Your task to perform on an android device: toggle airplane mode Image 0: 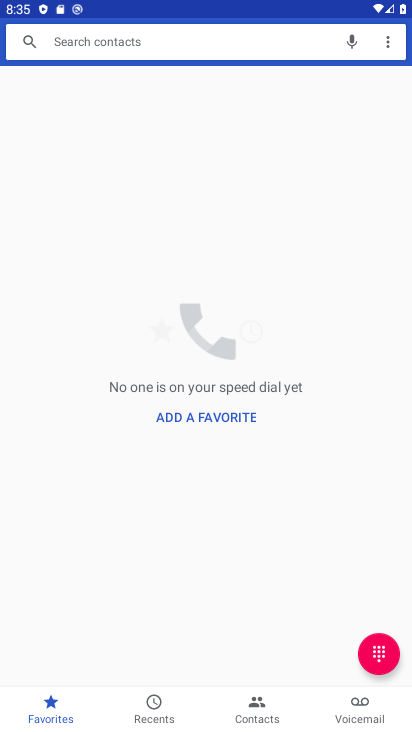
Step 0: press home button
Your task to perform on an android device: toggle airplane mode Image 1: 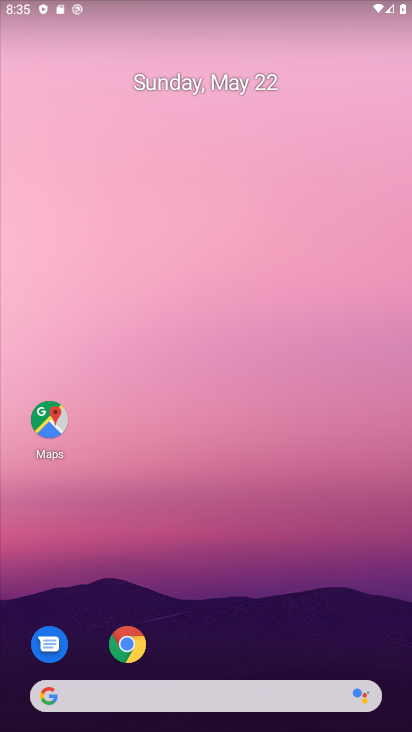
Step 1: drag from (205, 696) to (211, 250)
Your task to perform on an android device: toggle airplane mode Image 2: 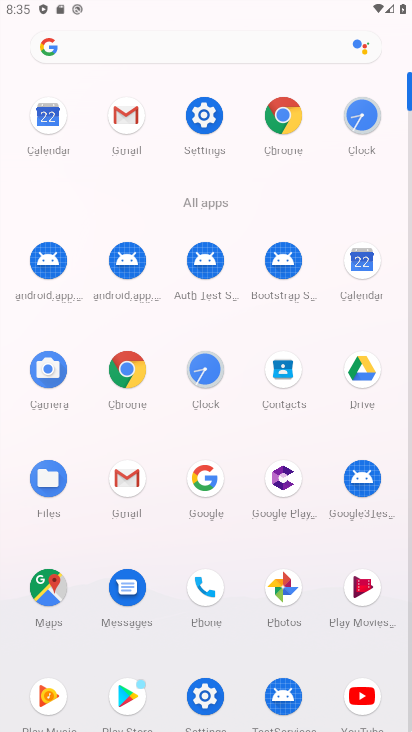
Step 2: click (201, 148)
Your task to perform on an android device: toggle airplane mode Image 3: 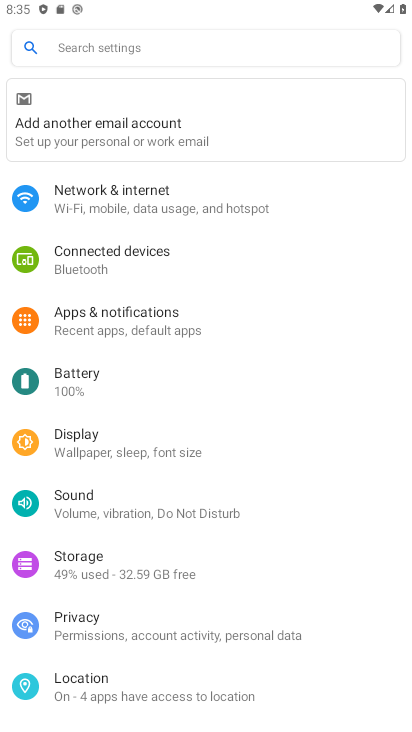
Step 3: click (155, 199)
Your task to perform on an android device: toggle airplane mode Image 4: 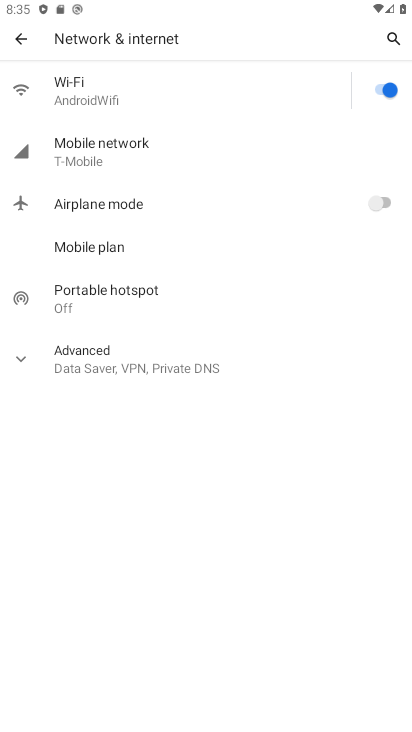
Step 4: click (388, 208)
Your task to perform on an android device: toggle airplane mode Image 5: 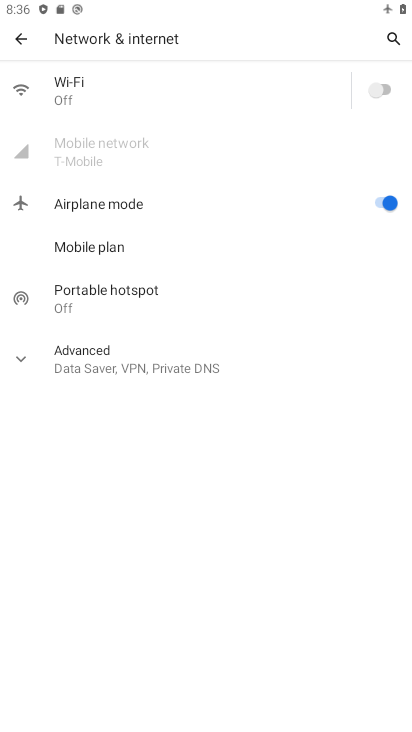
Step 5: task complete